Your task to perform on an android device: Turn on the flashlight Image 0: 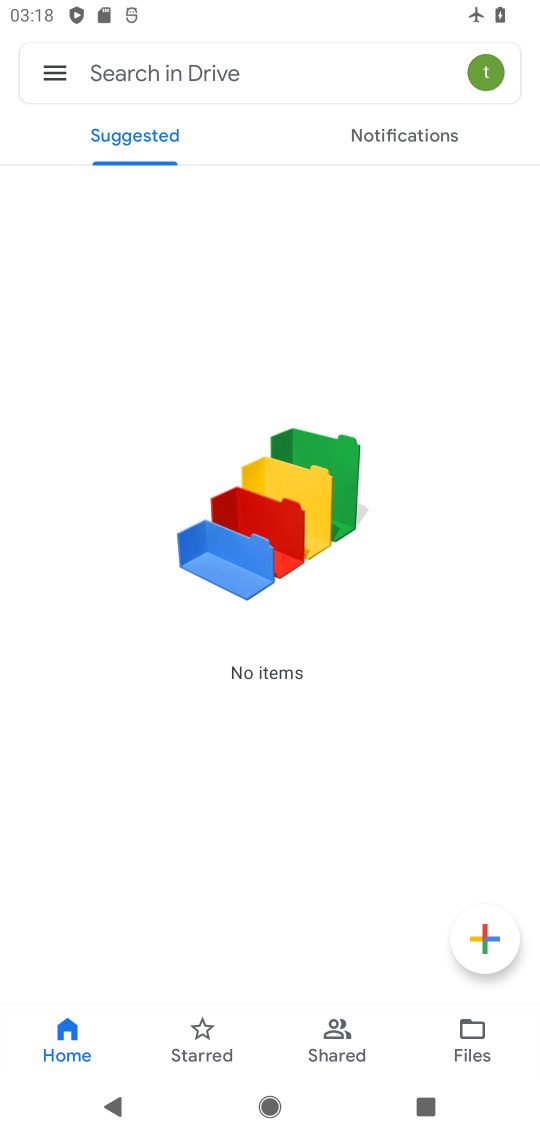
Step 0: press home button
Your task to perform on an android device: Turn on the flashlight Image 1: 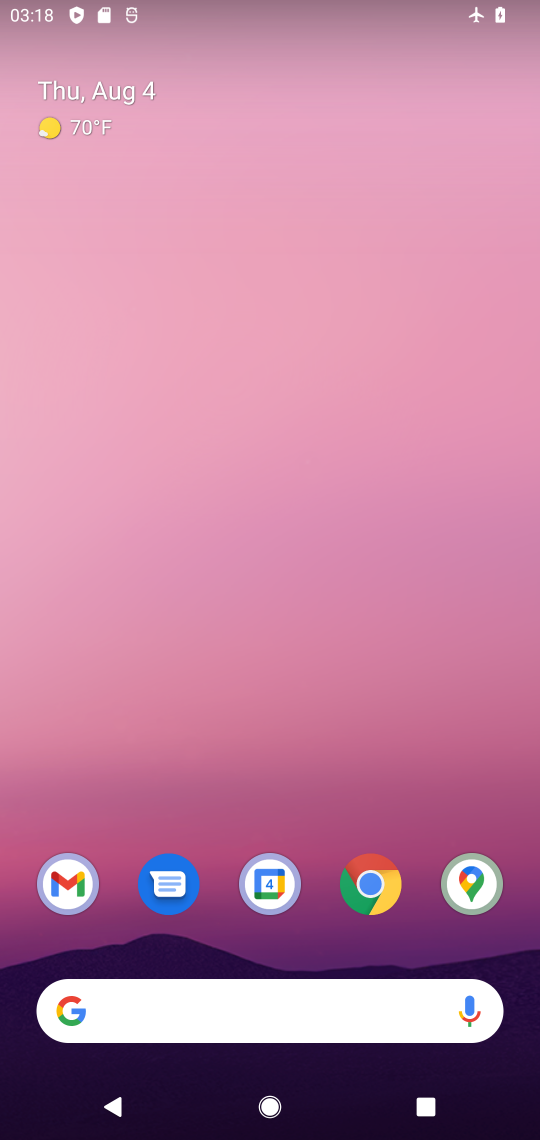
Step 1: drag from (228, 8) to (216, 520)
Your task to perform on an android device: Turn on the flashlight Image 2: 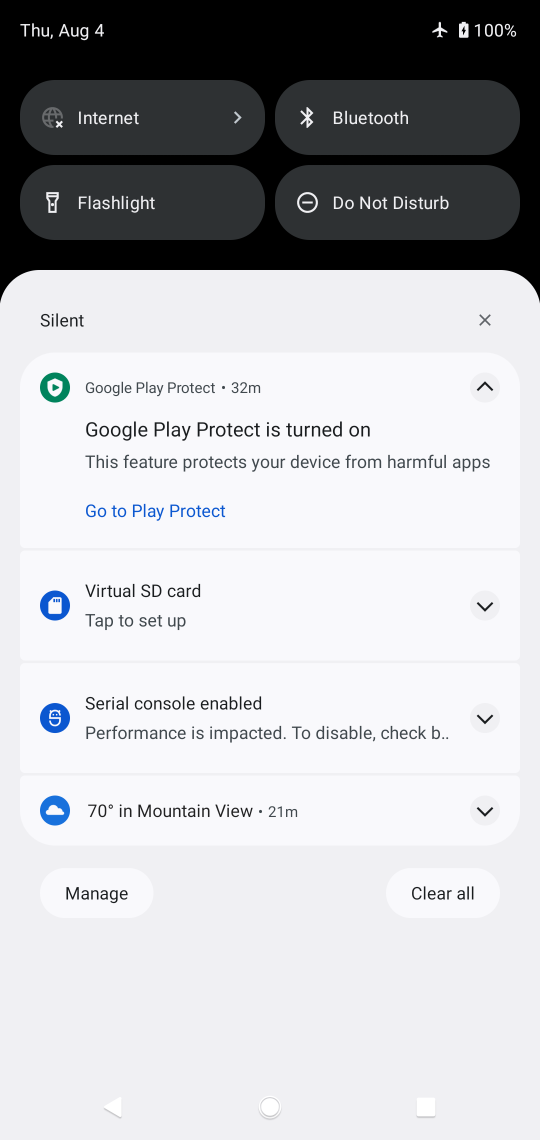
Step 2: drag from (266, 94) to (256, 565)
Your task to perform on an android device: Turn on the flashlight Image 3: 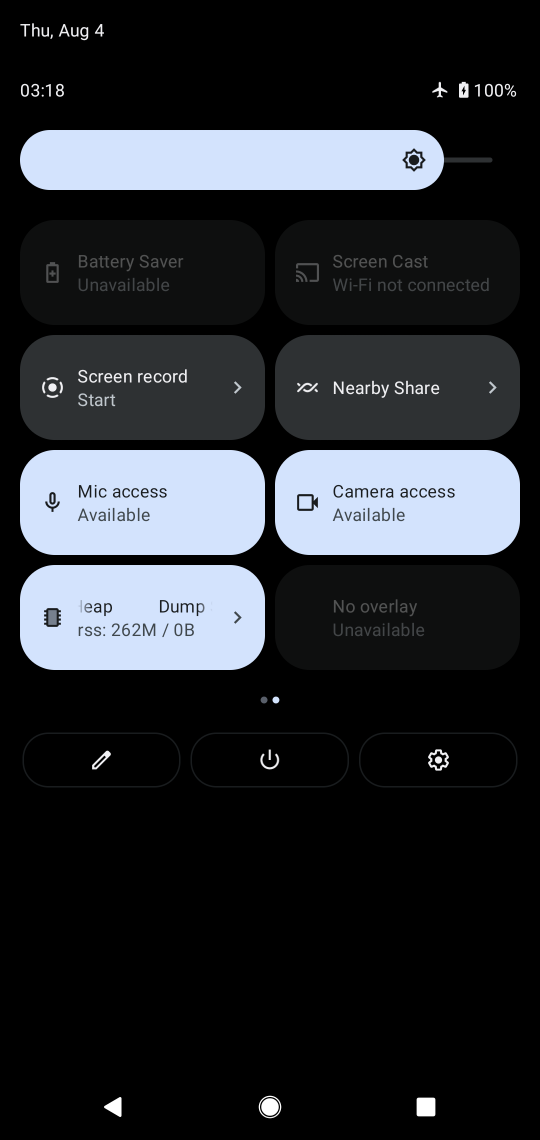
Step 3: click (87, 759)
Your task to perform on an android device: Turn on the flashlight Image 4: 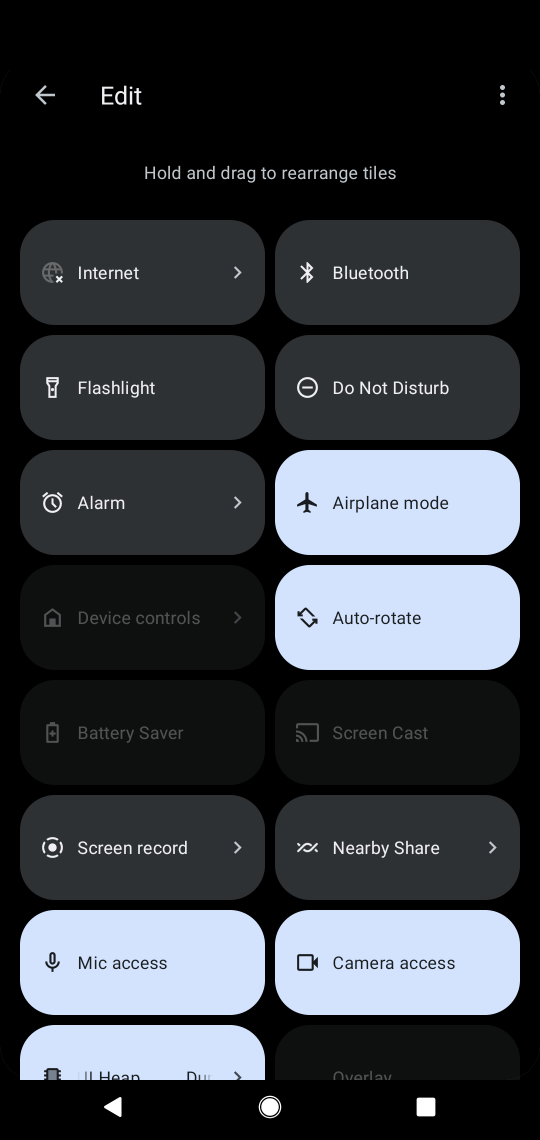
Step 4: click (137, 386)
Your task to perform on an android device: Turn on the flashlight Image 5: 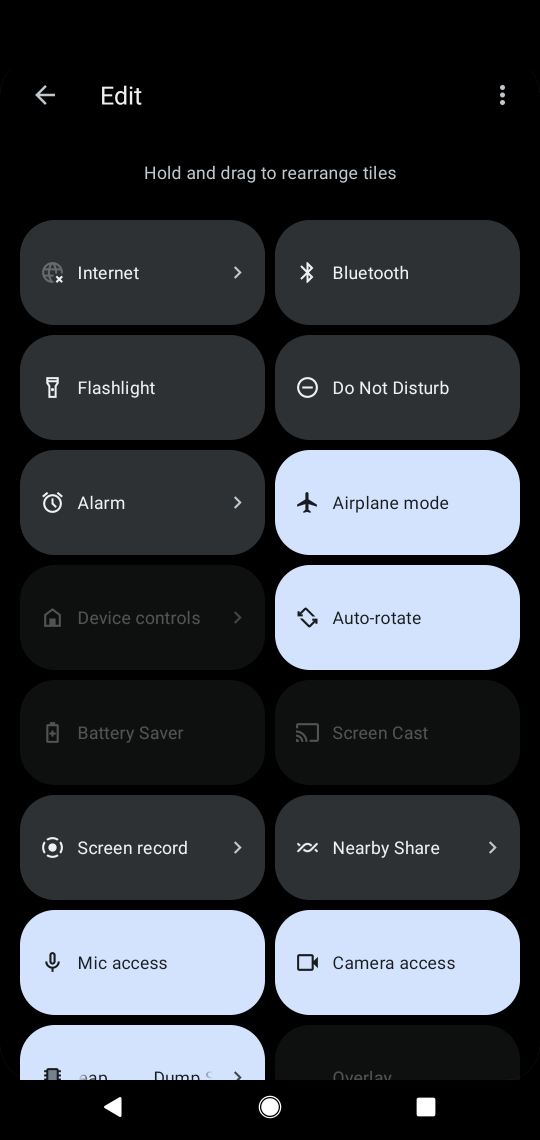
Step 5: click (137, 386)
Your task to perform on an android device: Turn on the flashlight Image 6: 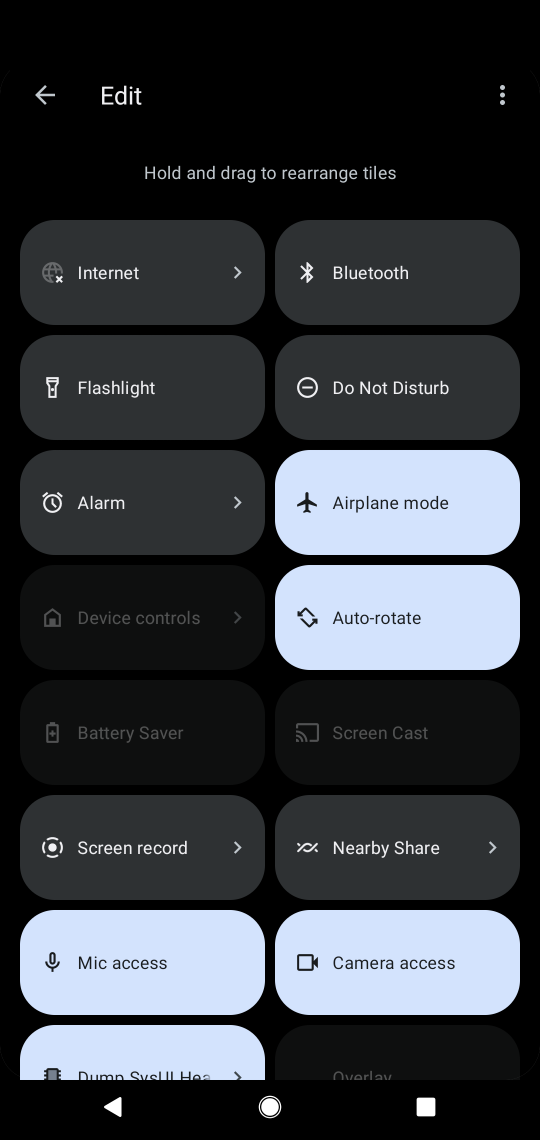
Step 6: task complete